Your task to perform on an android device: toggle data saver in the chrome app Image 0: 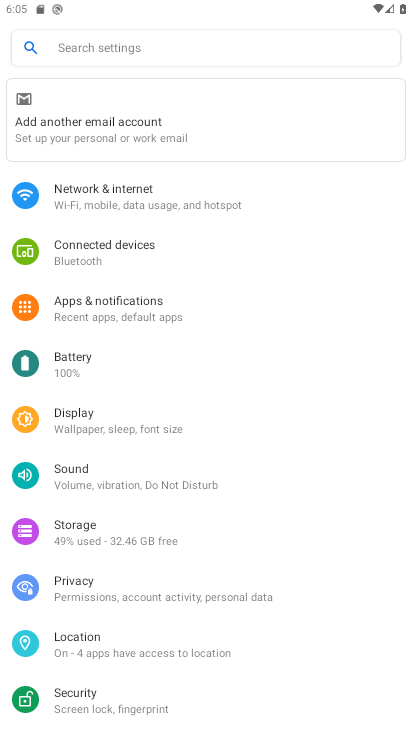
Step 0: press home button
Your task to perform on an android device: toggle data saver in the chrome app Image 1: 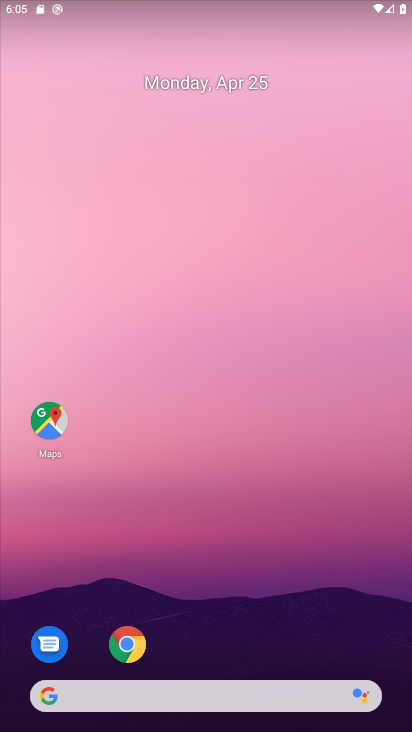
Step 1: click (133, 643)
Your task to perform on an android device: toggle data saver in the chrome app Image 2: 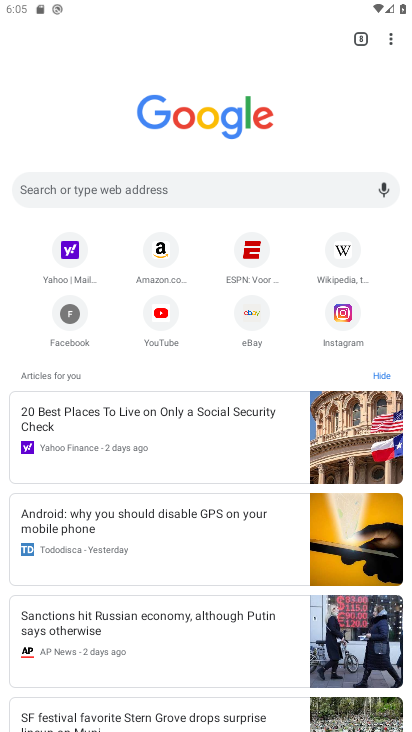
Step 2: click (387, 36)
Your task to perform on an android device: toggle data saver in the chrome app Image 3: 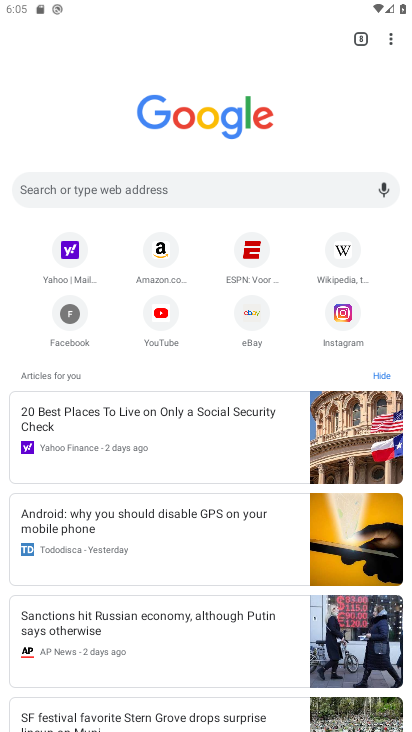
Step 3: click (387, 36)
Your task to perform on an android device: toggle data saver in the chrome app Image 4: 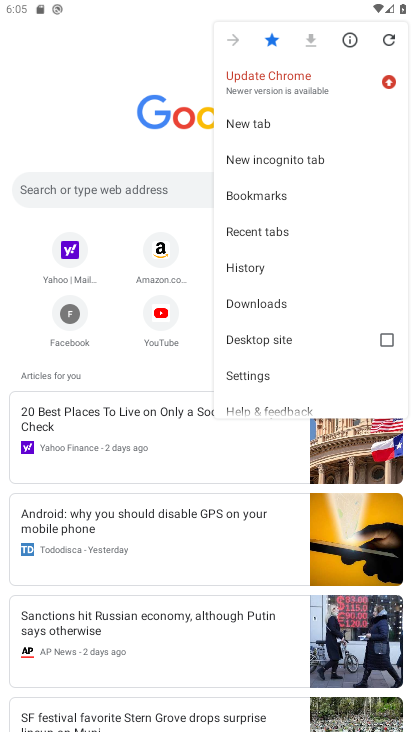
Step 4: click (257, 376)
Your task to perform on an android device: toggle data saver in the chrome app Image 5: 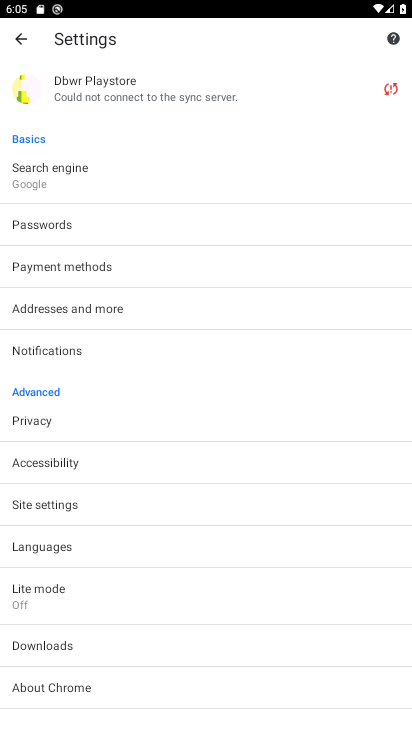
Step 5: click (105, 589)
Your task to perform on an android device: toggle data saver in the chrome app Image 6: 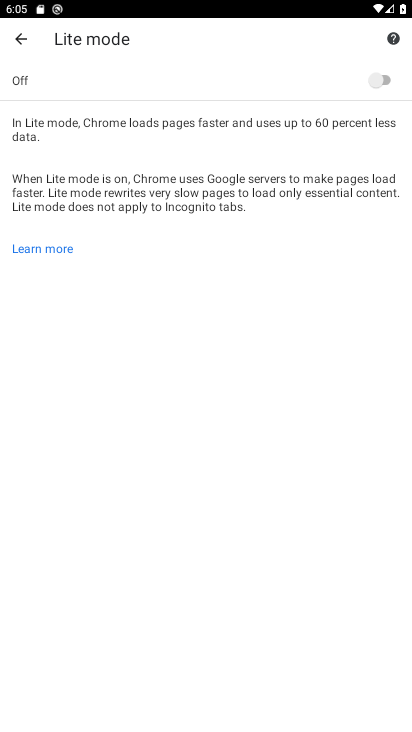
Step 6: click (379, 75)
Your task to perform on an android device: toggle data saver in the chrome app Image 7: 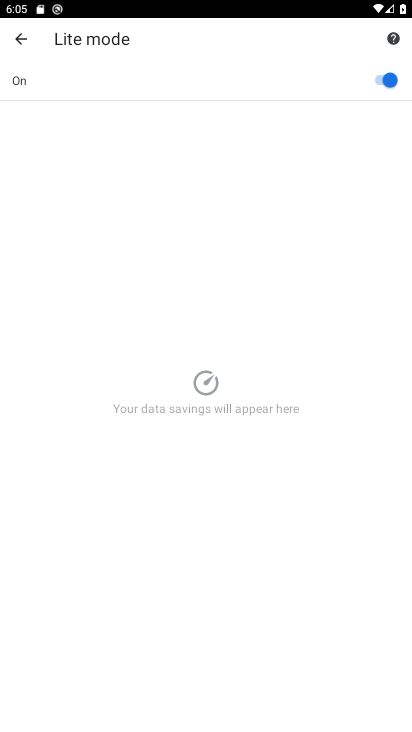
Step 7: task complete